Your task to perform on an android device: Open calendar and show me the second week of next month Image 0: 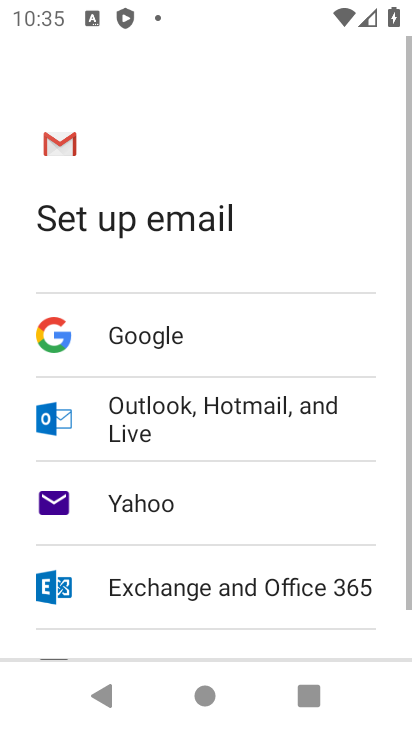
Step 0: press home button
Your task to perform on an android device: Open calendar and show me the second week of next month Image 1: 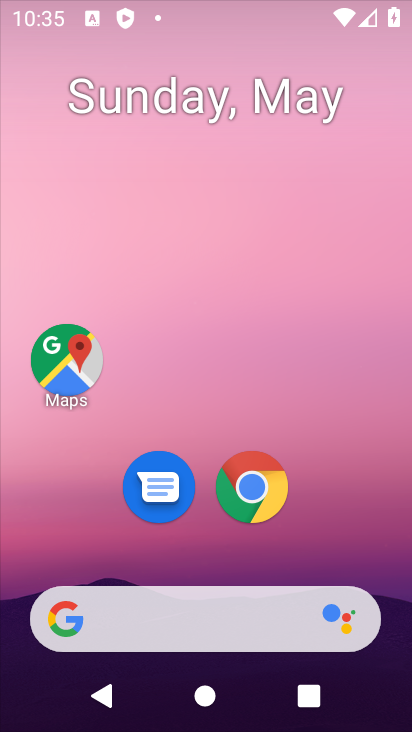
Step 1: drag from (165, 689) to (229, 224)
Your task to perform on an android device: Open calendar and show me the second week of next month Image 2: 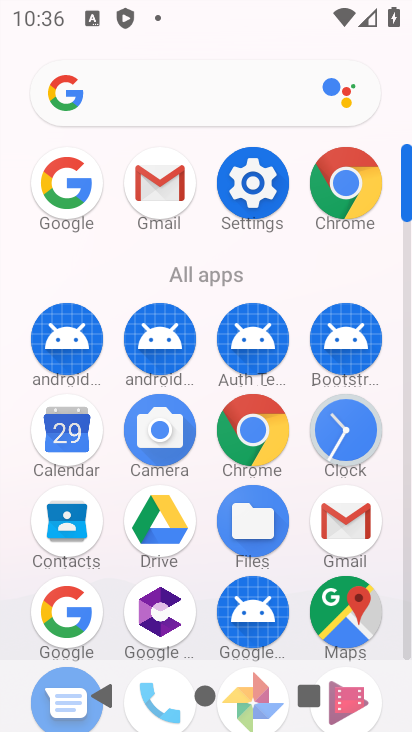
Step 2: click (350, 217)
Your task to perform on an android device: Open calendar and show me the second week of next month Image 3: 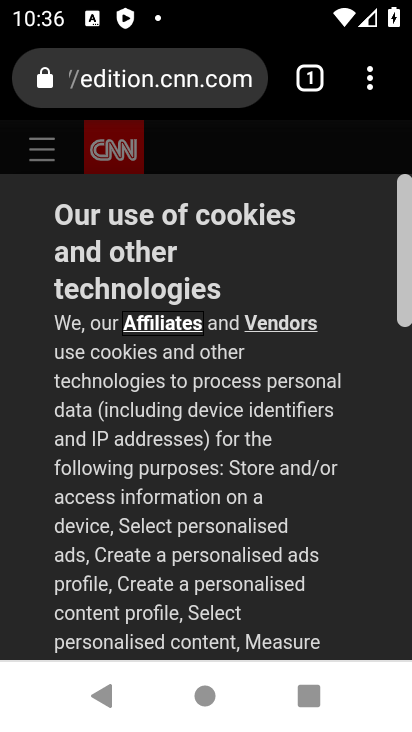
Step 3: press home button
Your task to perform on an android device: Open calendar and show me the second week of next month Image 4: 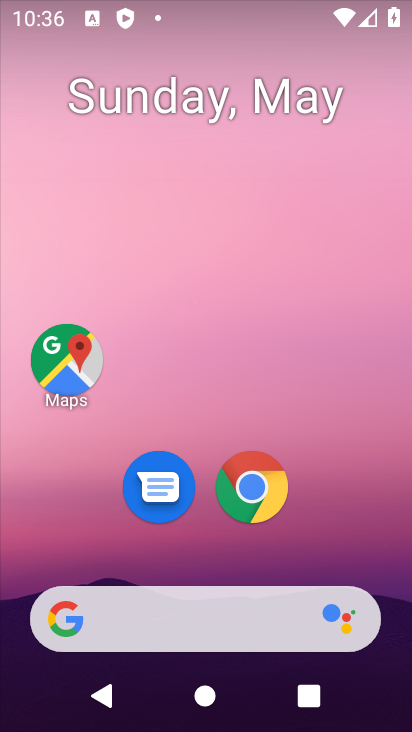
Step 4: drag from (175, 585) to (342, 147)
Your task to perform on an android device: Open calendar and show me the second week of next month Image 5: 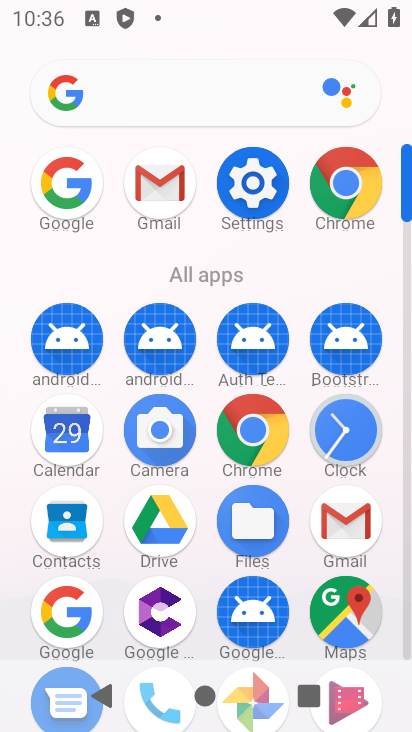
Step 5: click (71, 447)
Your task to perform on an android device: Open calendar and show me the second week of next month Image 6: 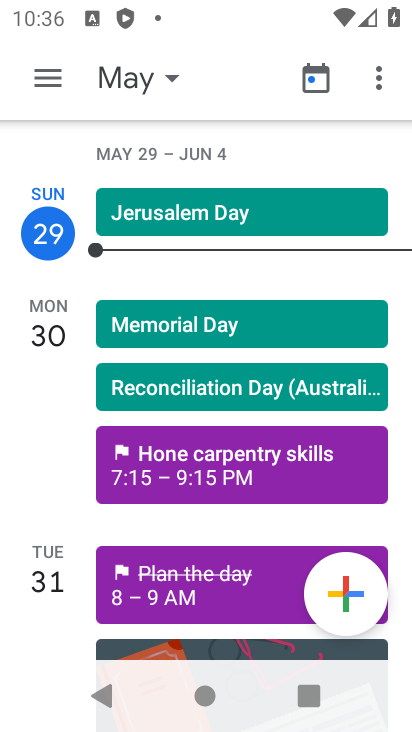
Step 6: click (162, 79)
Your task to perform on an android device: Open calendar and show me the second week of next month Image 7: 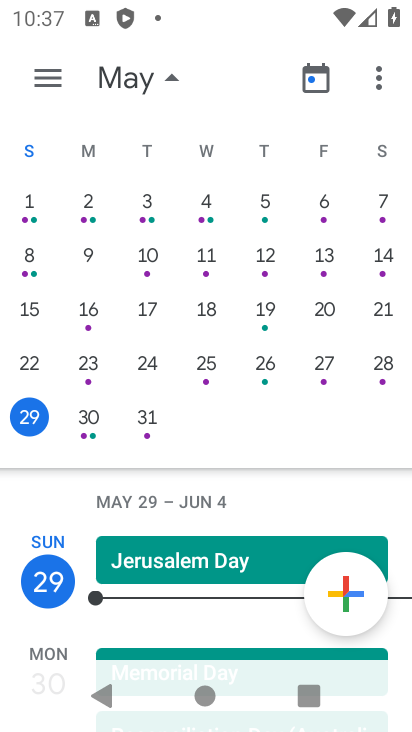
Step 7: drag from (349, 307) to (28, 399)
Your task to perform on an android device: Open calendar and show me the second week of next month Image 8: 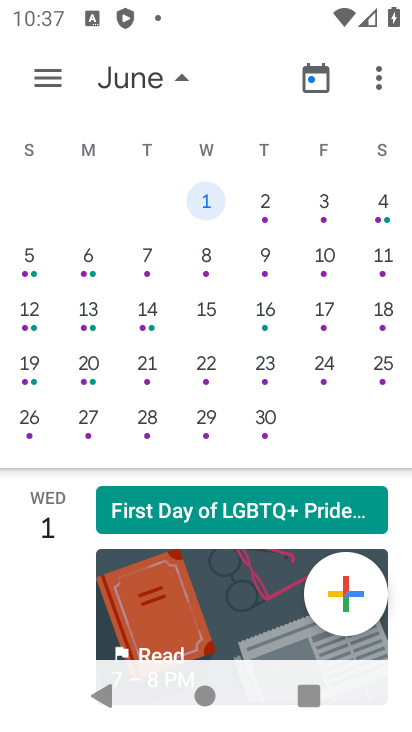
Step 8: click (40, 275)
Your task to perform on an android device: Open calendar and show me the second week of next month Image 9: 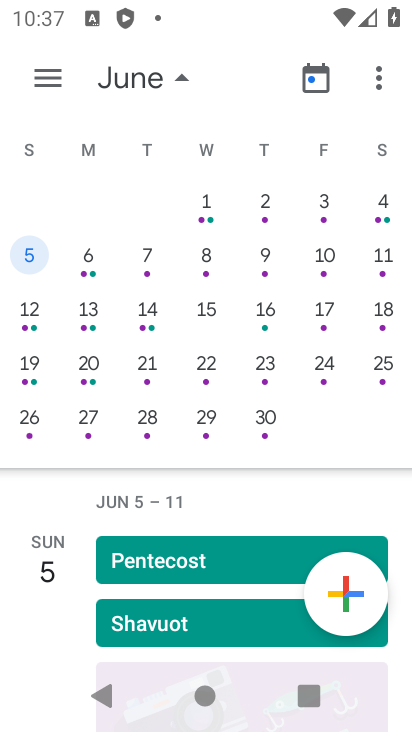
Step 9: task complete